Your task to perform on an android device: set the timer Image 0: 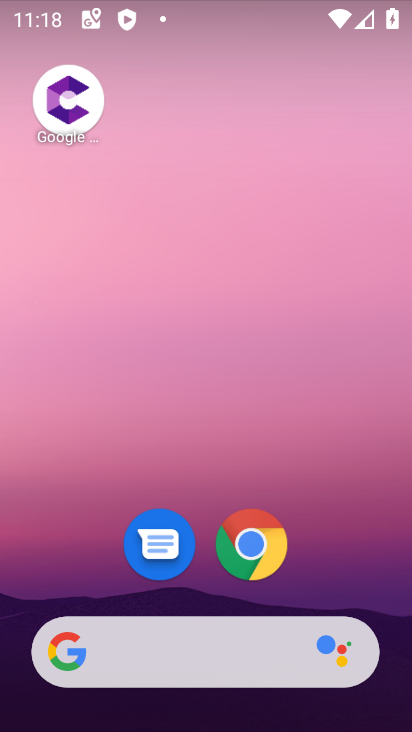
Step 0: press home button
Your task to perform on an android device: set the timer Image 1: 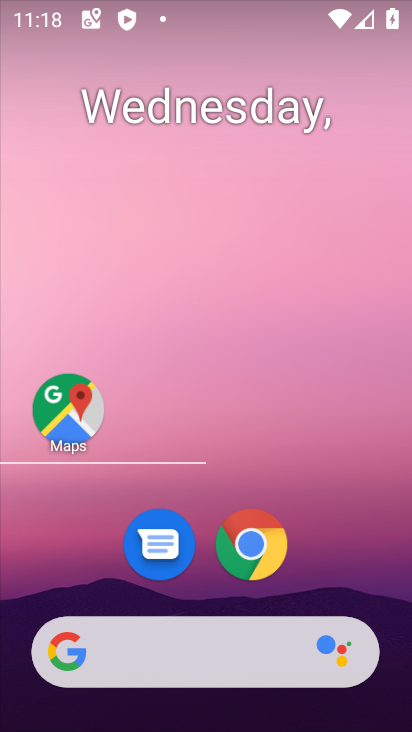
Step 1: drag from (379, 572) to (361, 103)
Your task to perform on an android device: set the timer Image 2: 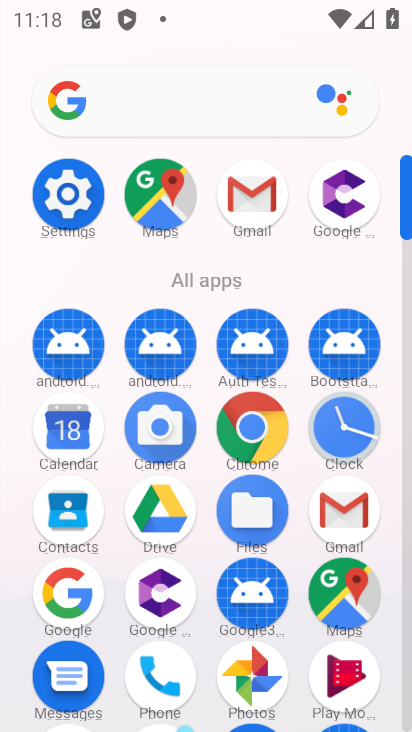
Step 2: click (325, 441)
Your task to perform on an android device: set the timer Image 3: 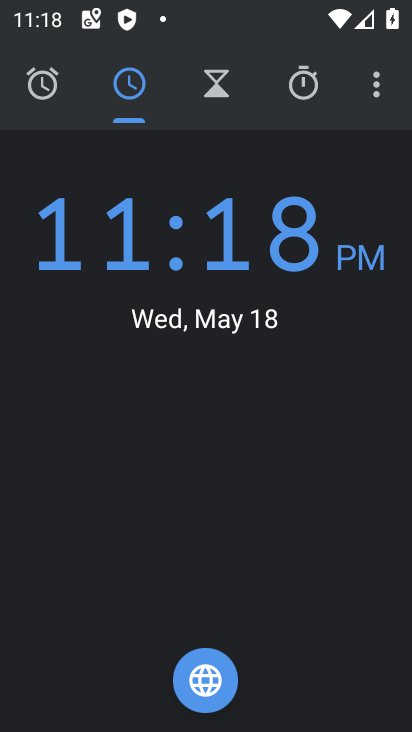
Step 3: click (222, 96)
Your task to perform on an android device: set the timer Image 4: 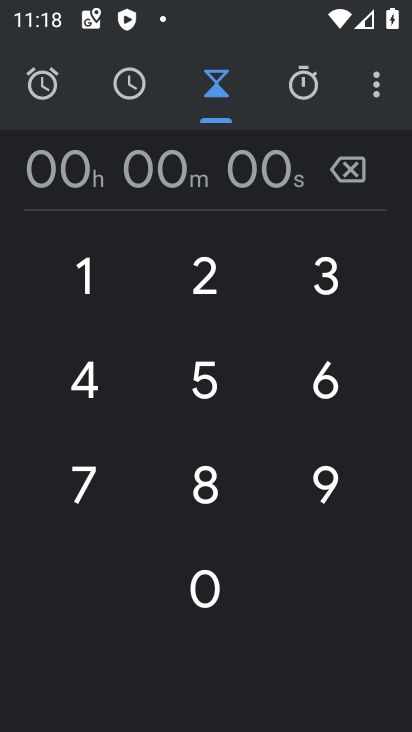
Step 4: click (227, 405)
Your task to perform on an android device: set the timer Image 5: 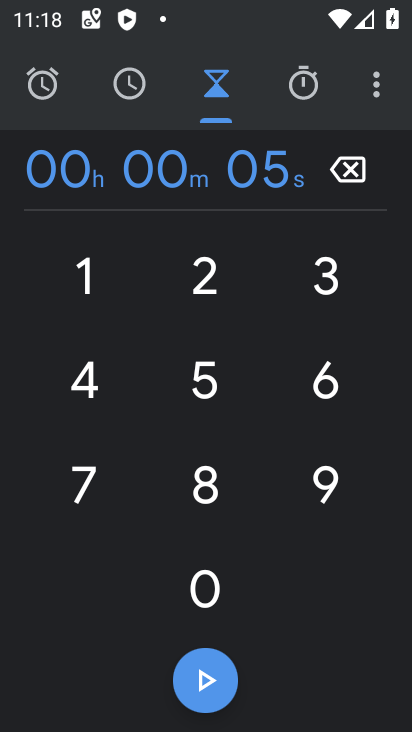
Step 5: click (221, 640)
Your task to perform on an android device: set the timer Image 6: 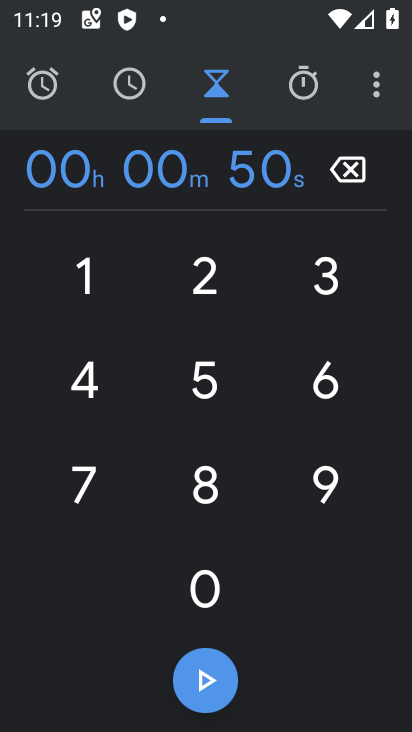
Step 6: click (231, 694)
Your task to perform on an android device: set the timer Image 7: 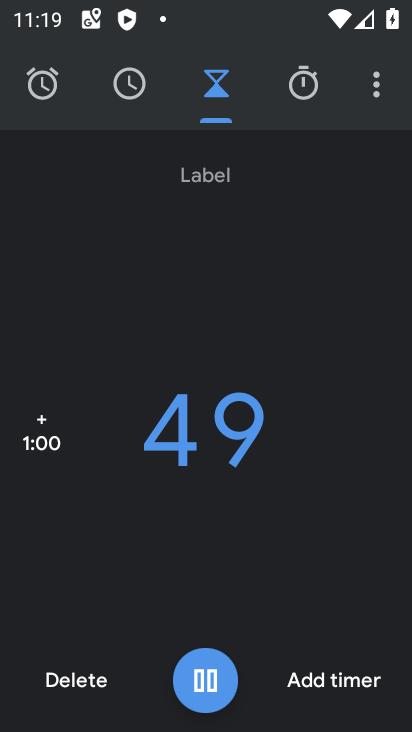
Step 7: task complete